Your task to perform on an android device: Open Google Chrome and click the shortcut for Amazon.com Image 0: 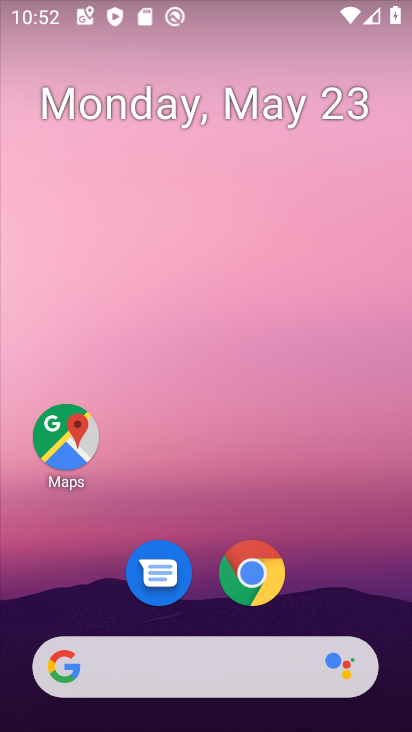
Step 0: click (269, 585)
Your task to perform on an android device: Open Google Chrome and click the shortcut for Amazon.com Image 1: 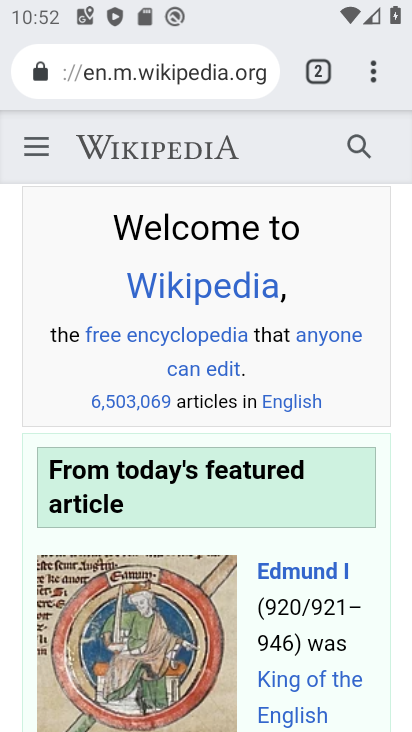
Step 1: drag from (265, 79) to (233, 367)
Your task to perform on an android device: Open Google Chrome and click the shortcut for Amazon.com Image 2: 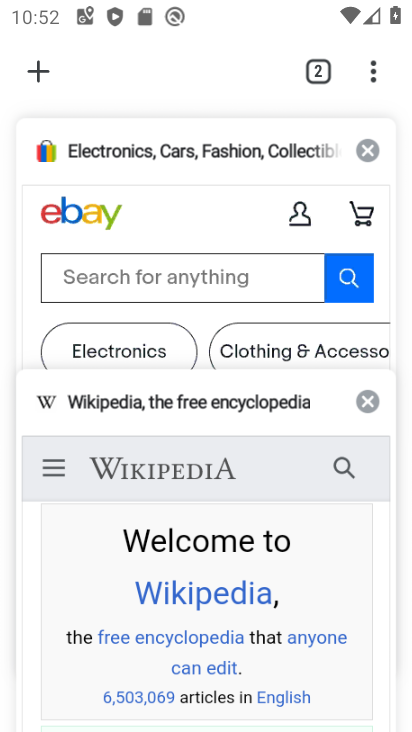
Step 2: click (35, 76)
Your task to perform on an android device: Open Google Chrome and click the shortcut for Amazon.com Image 3: 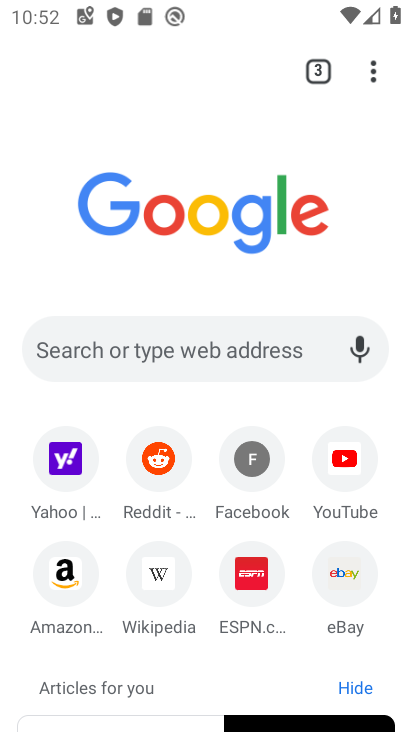
Step 3: click (77, 581)
Your task to perform on an android device: Open Google Chrome and click the shortcut for Amazon.com Image 4: 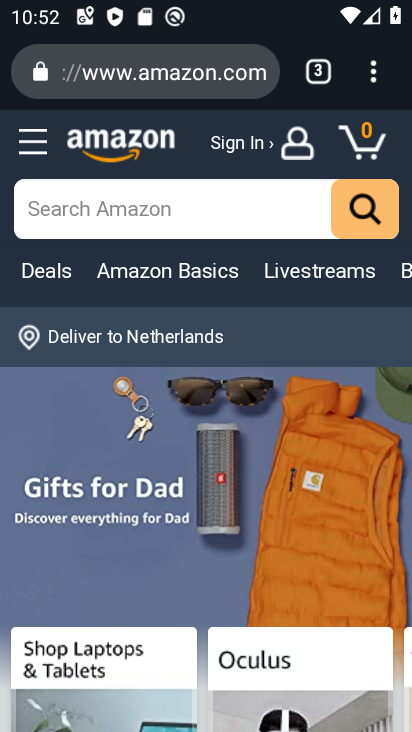
Step 4: task complete